Your task to perform on an android device: See recent photos Image 0: 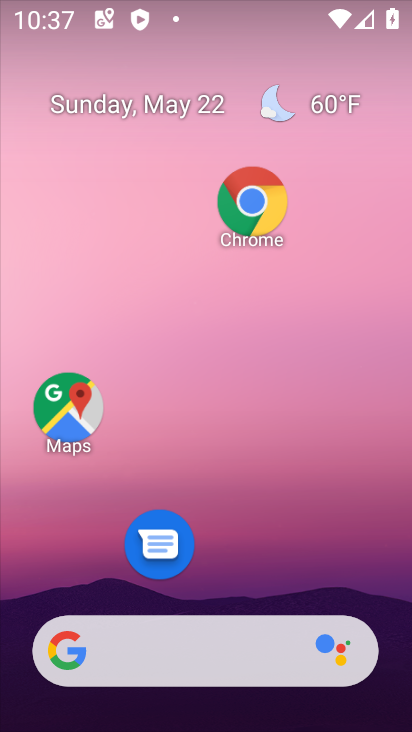
Step 0: drag from (279, 447) to (288, 27)
Your task to perform on an android device: See recent photos Image 1: 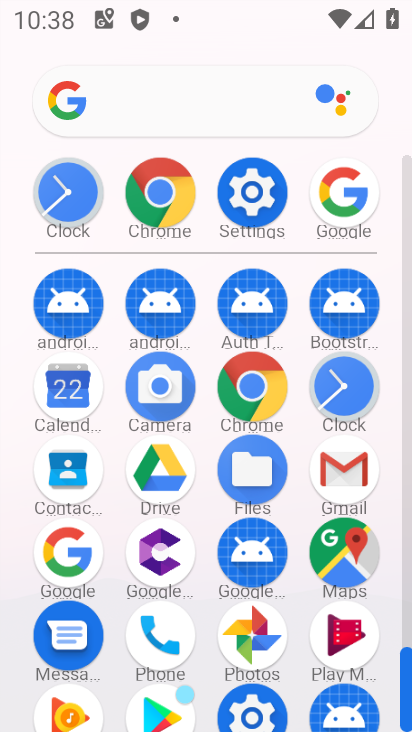
Step 1: click (248, 635)
Your task to perform on an android device: See recent photos Image 2: 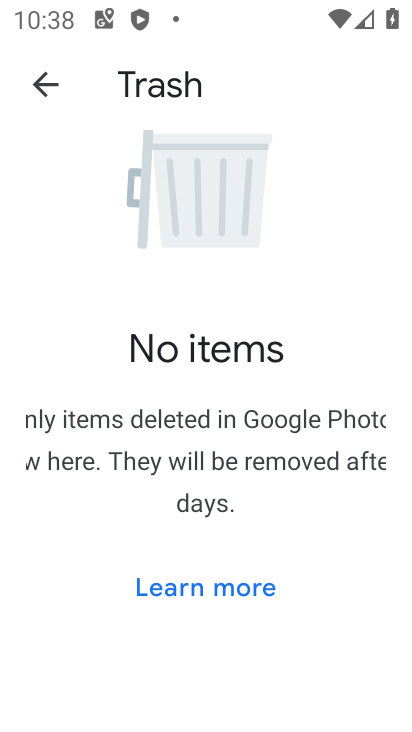
Step 2: press back button
Your task to perform on an android device: See recent photos Image 3: 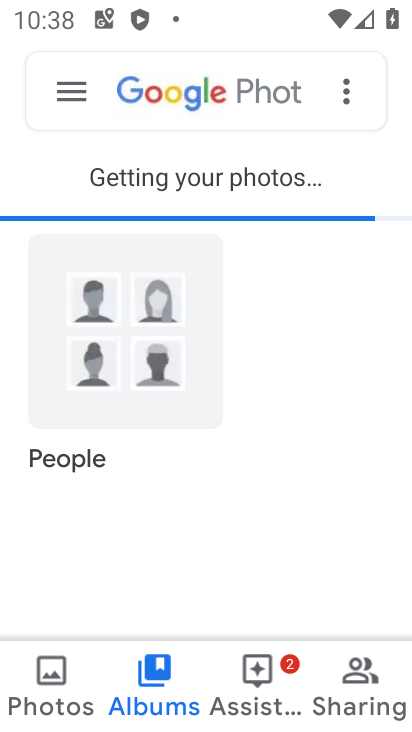
Step 3: click (65, 666)
Your task to perform on an android device: See recent photos Image 4: 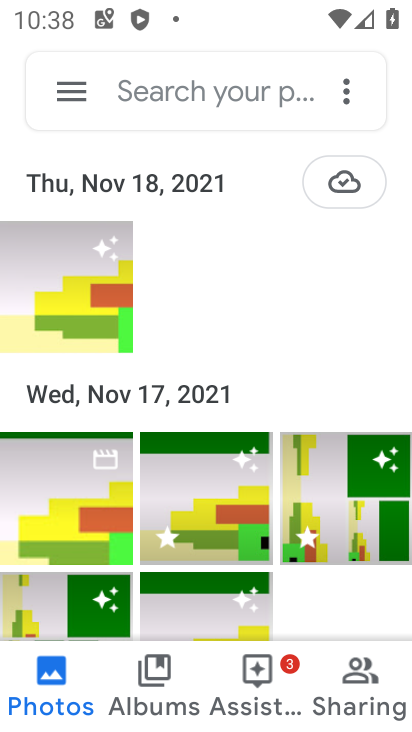
Step 4: task complete